Your task to perform on an android device: open device folders in google photos Image 0: 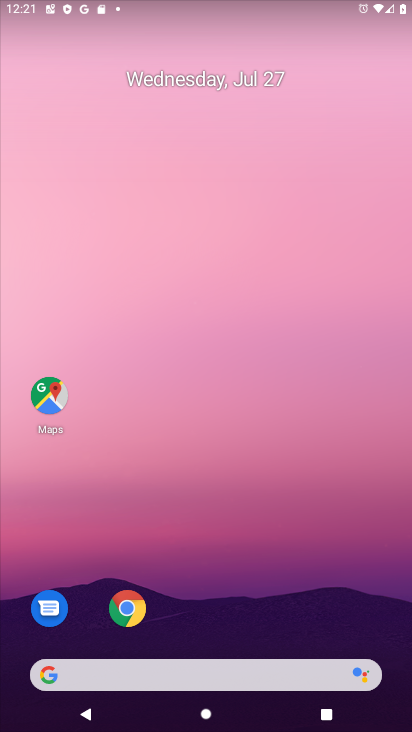
Step 0: drag from (213, 669) to (227, 66)
Your task to perform on an android device: open device folders in google photos Image 1: 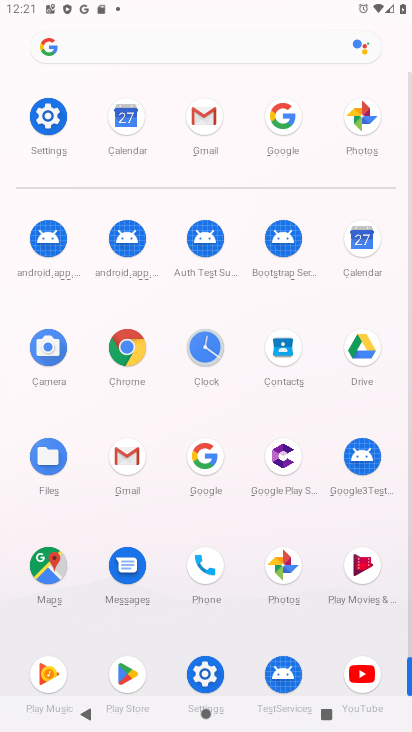
Step 1: click (363, 116)
Your task to perform on an android device: open device folders in google photos Image 2: 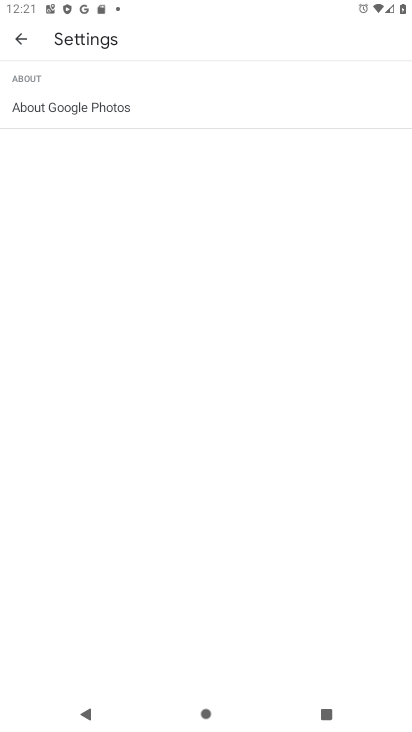
Step 2: press back button
Your task to perform on an android device: open device folders in google photos Image 3: 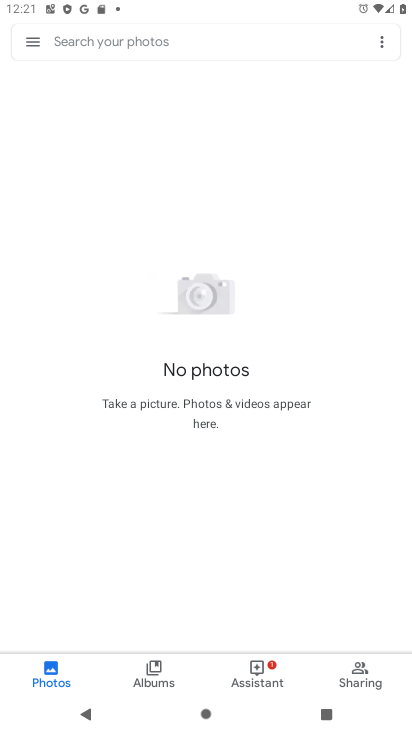
Step 3: click (30, 46)
Your task to perform on an android device: open device folders in google photos Image 4: 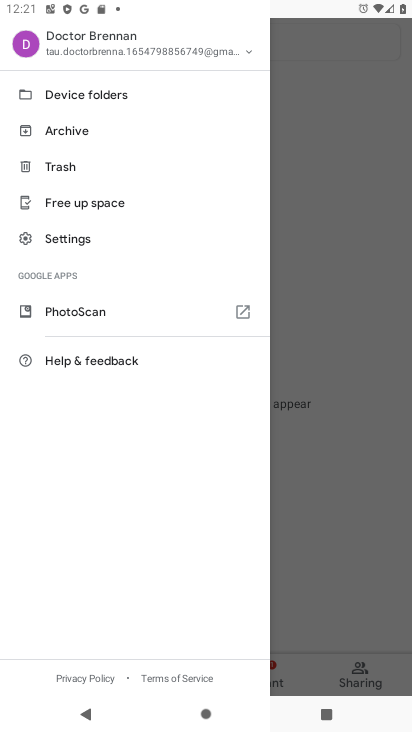
Step 4: click (59, 96)
Your task to perform on an android device: open device folders in google photos Image 5: 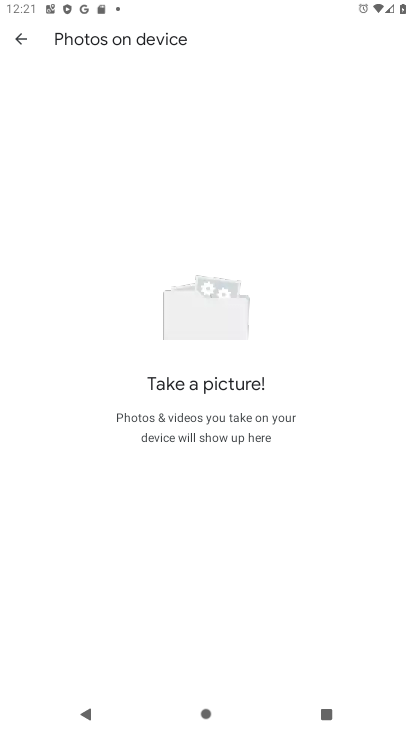
Step 5: task complete